Your task to perform on an android device: open a new tab in the chrome app Image 0: 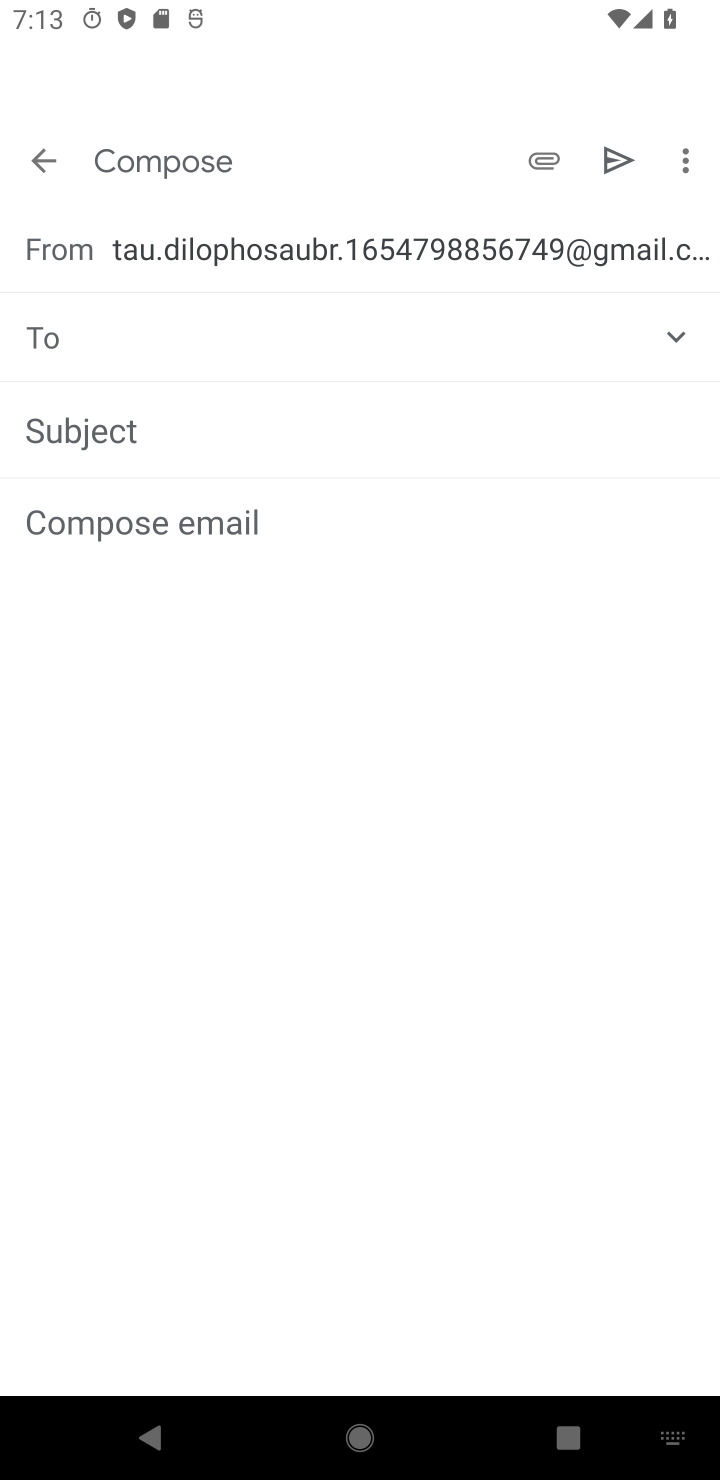
Step 0: press home button
Your task to perform on an android device: open a new tab in the chrome app Image 1: 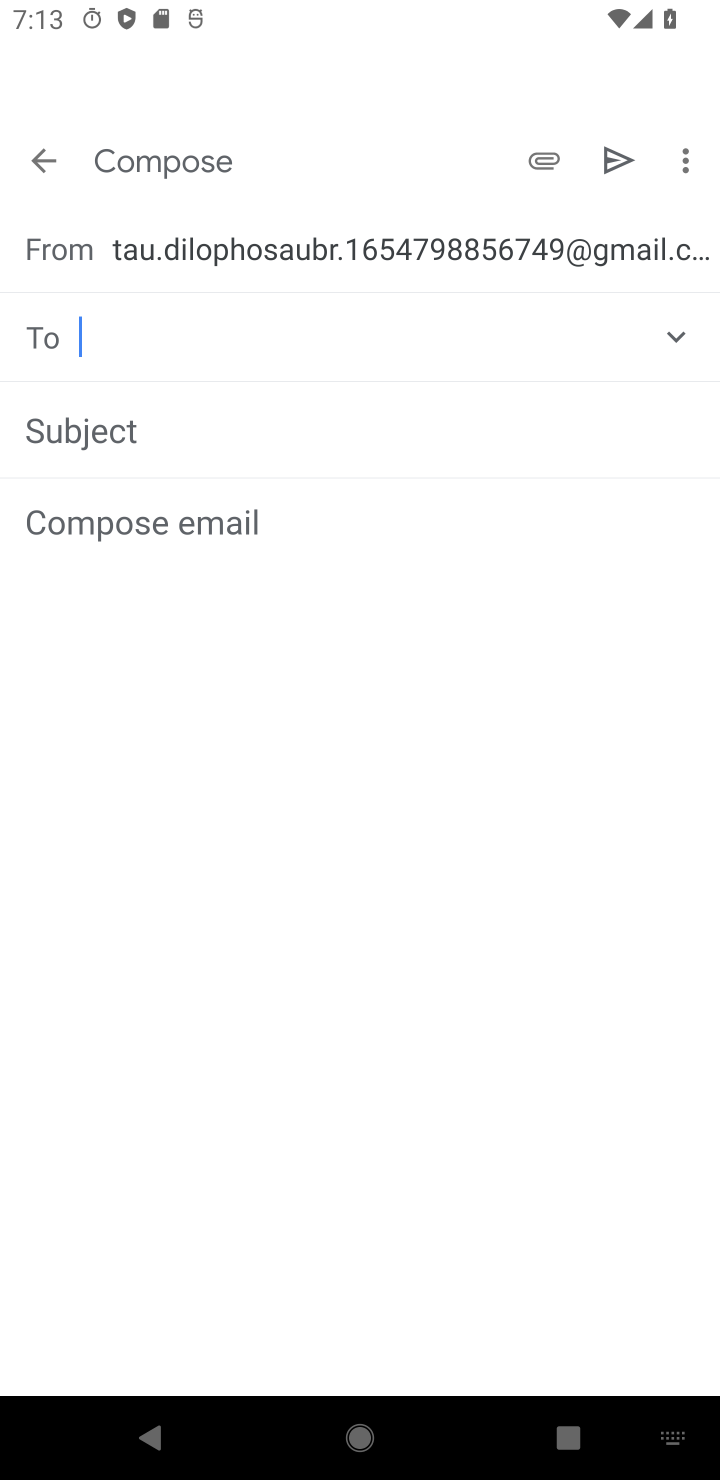
Step 1: press home button
Your task to perform on an android device: open a new tab in the chrome app Image 2: 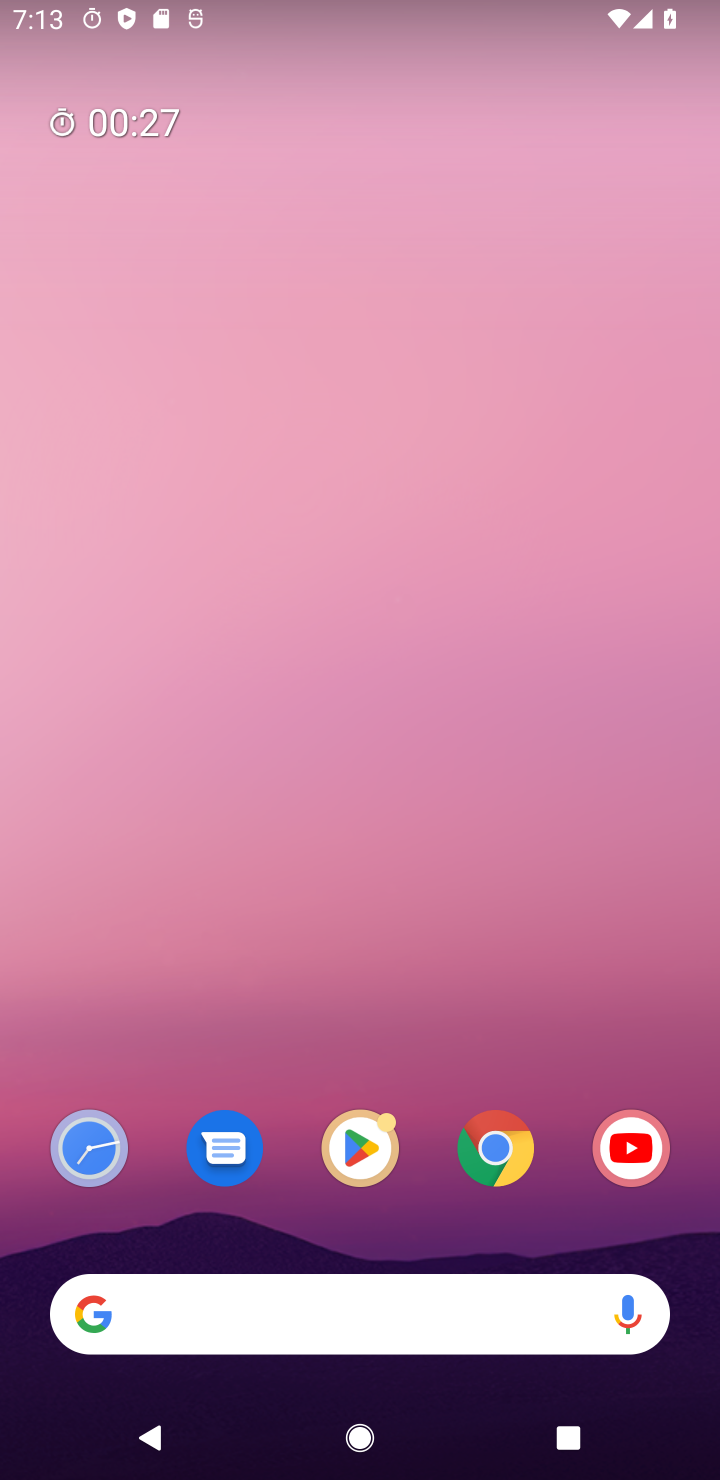
Step 2: drag from (351, 792) to (336, 161)
Your task to perform on an android device: open a new tab in the chrome app Image 3: 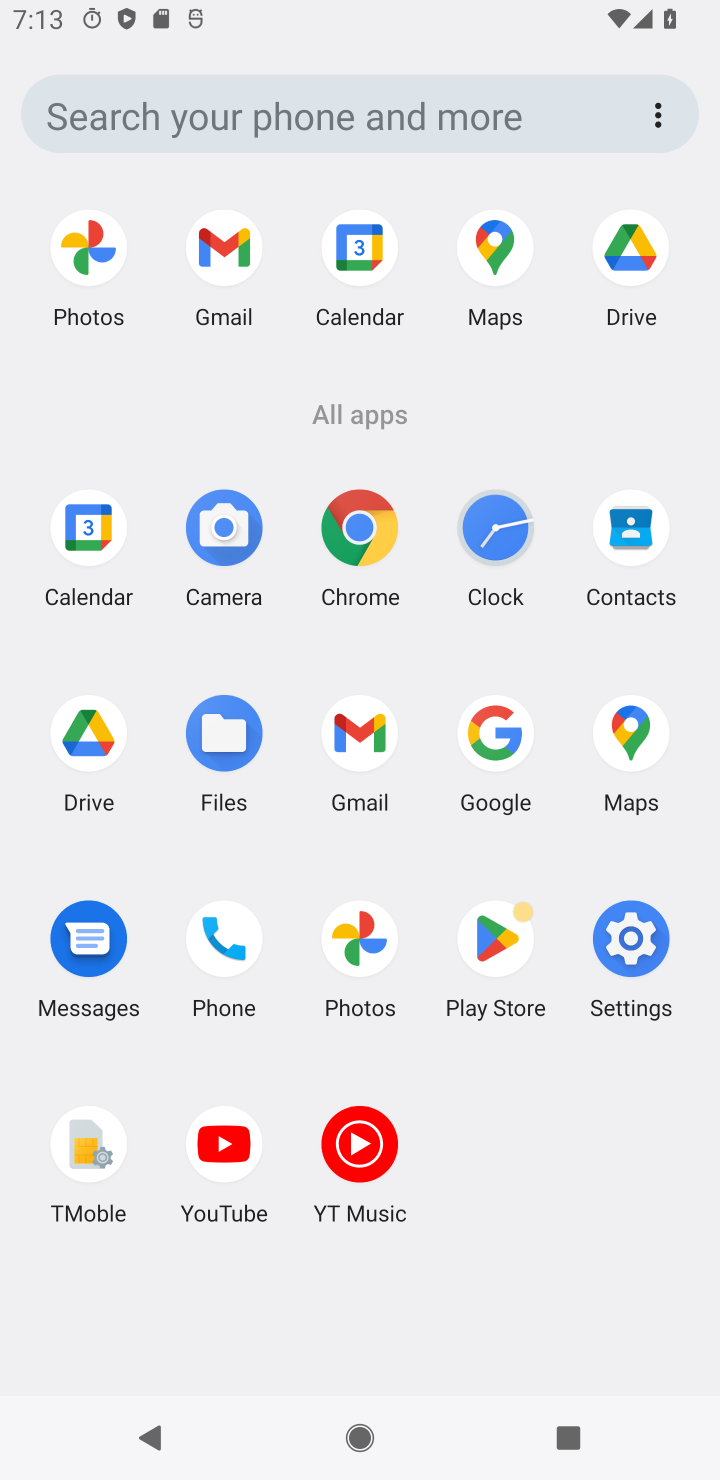
Step 3: click (395, 534)
Your task to perform on an android device: open a new tab in the chrome app Image 4: 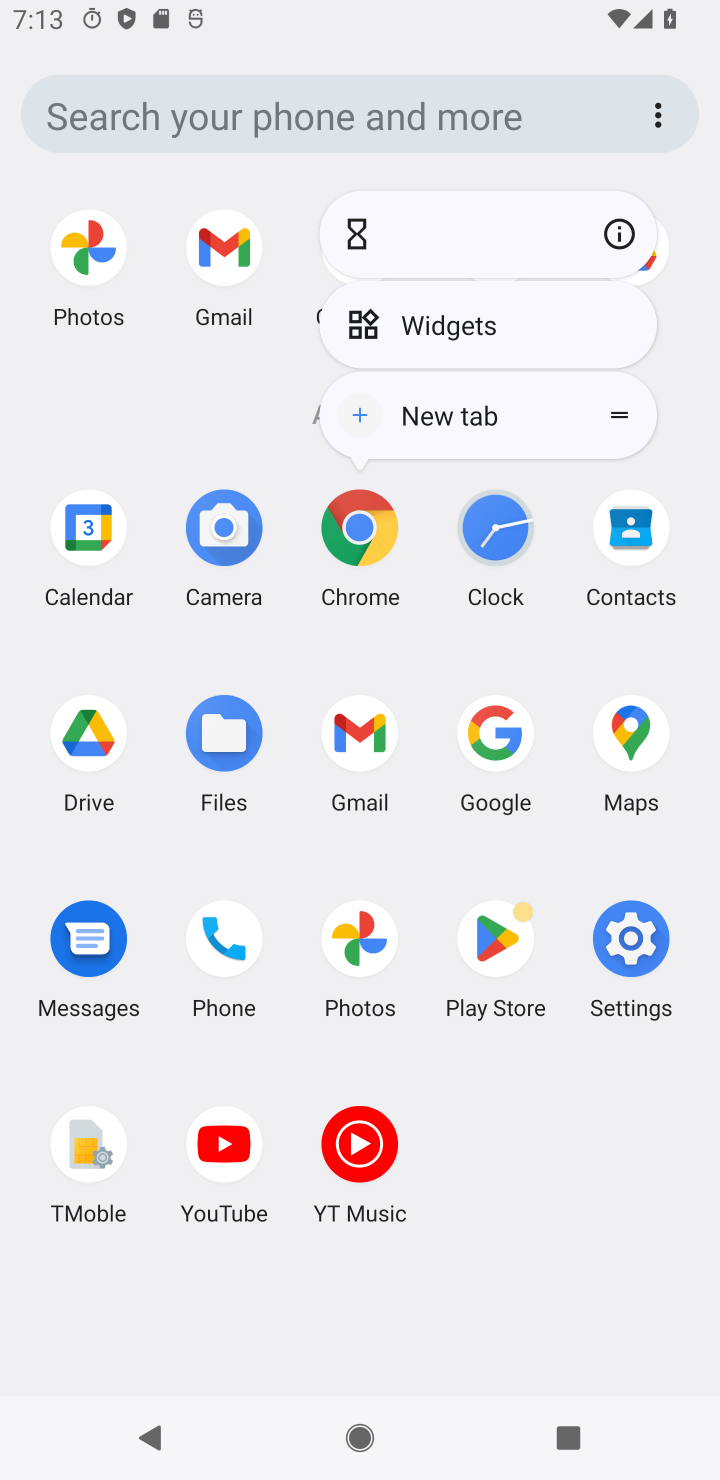
Step 4: click (380, 527)
Your task to perform on an android device: open a new tab in the chrome app Image 5: 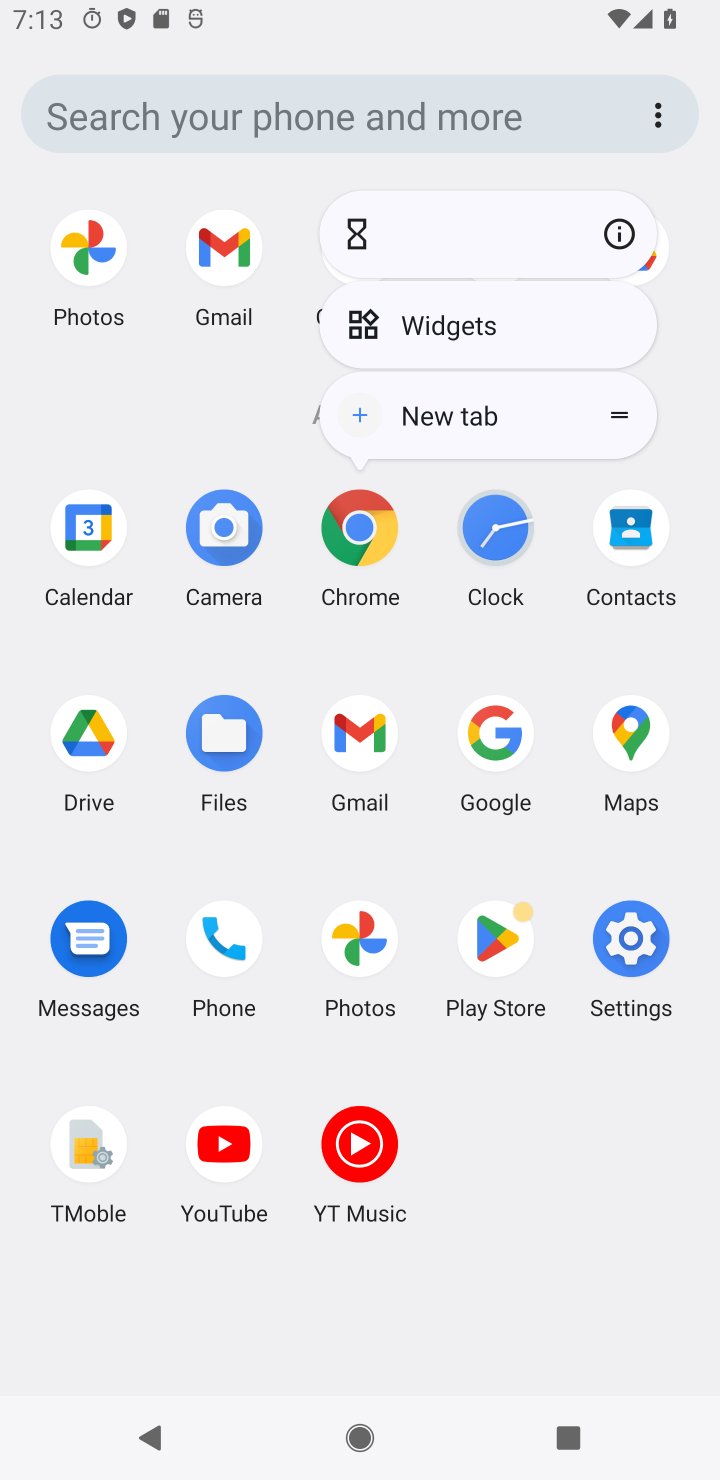
Step 5: click (380, 527)
Your task to perform on an android device: open a new tab in the chrome app Image 6: 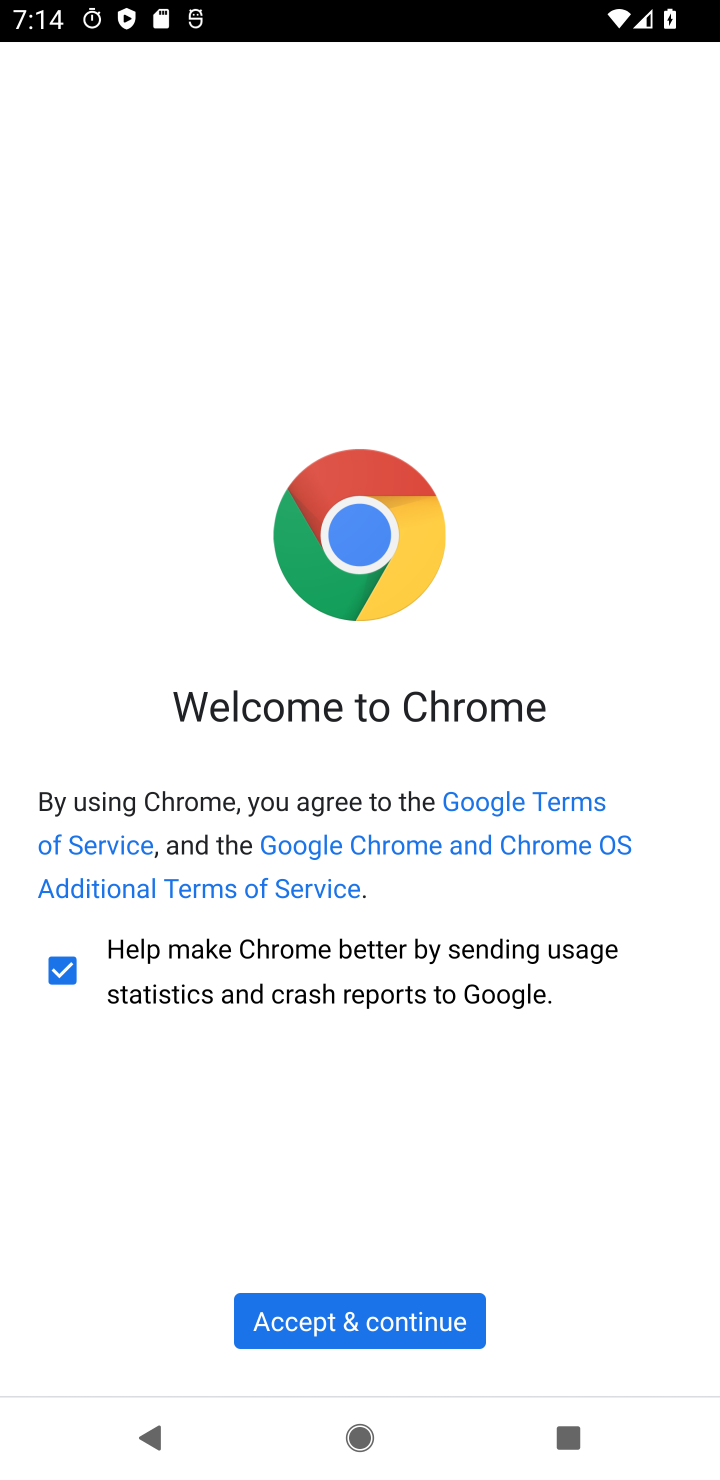
Step 6: click (437, 1299)
Your task to perform on an android device: open a new tab in the chrome app Image 7: 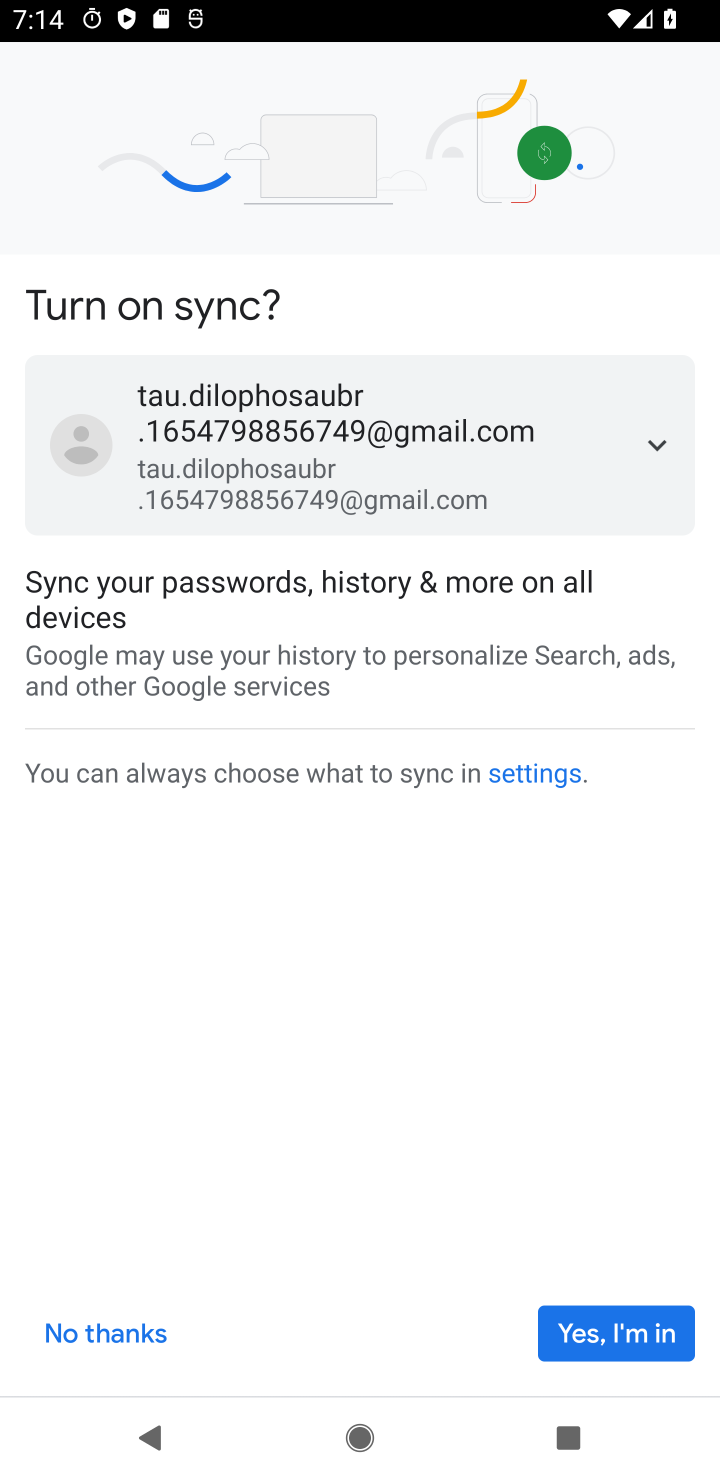
Step 7: click (653, 1331)
Your task to perform on an android device: open a new tab in the chrome app Image 8: 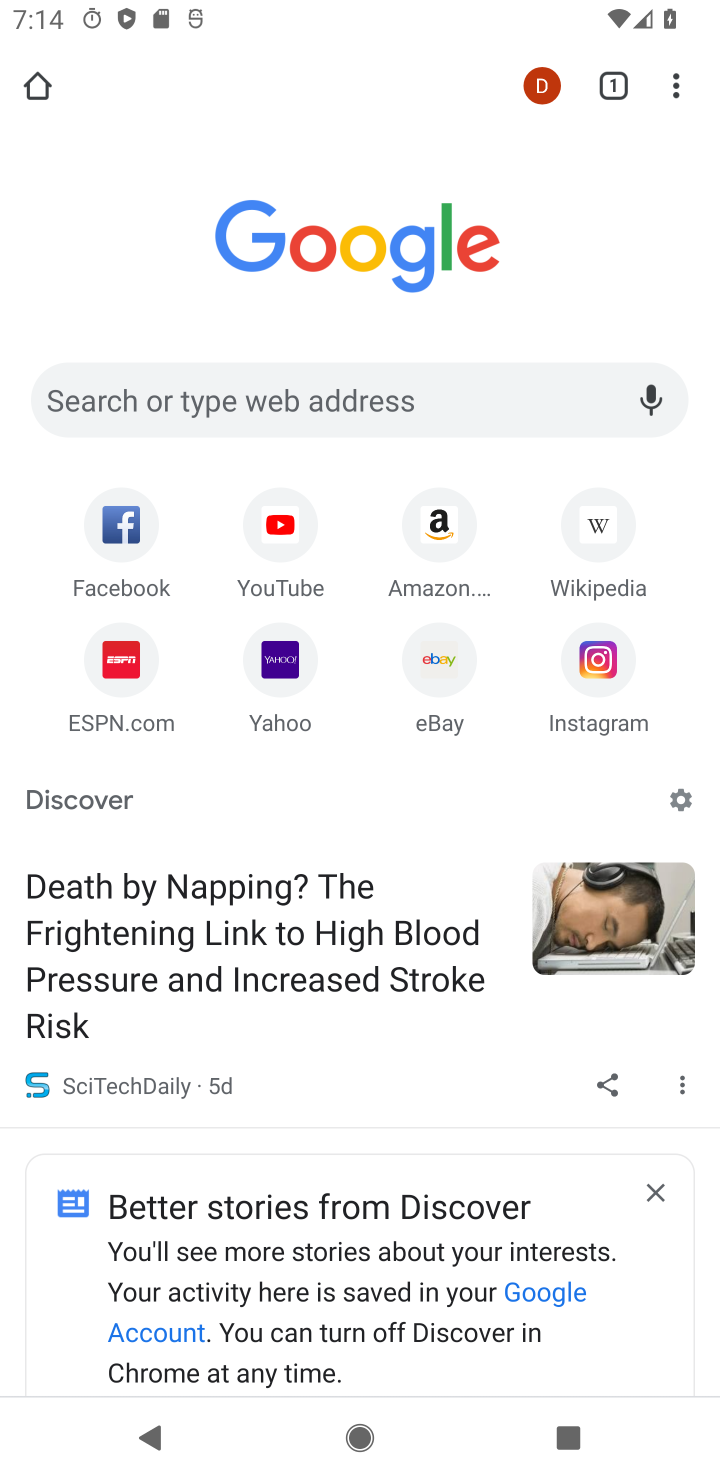
Step 8: task complete